Your task to perform on an android device: Open battery settings Image 0: 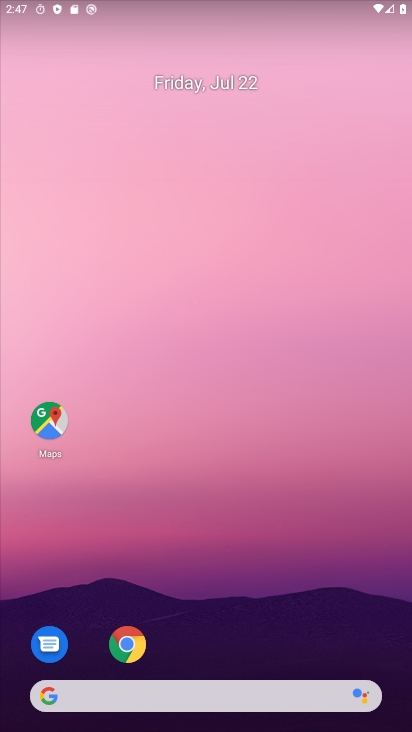
Step 0: drag from (205, 664) to (183, 265)
Your task to perform on an android device: Open battery settings Image 1: 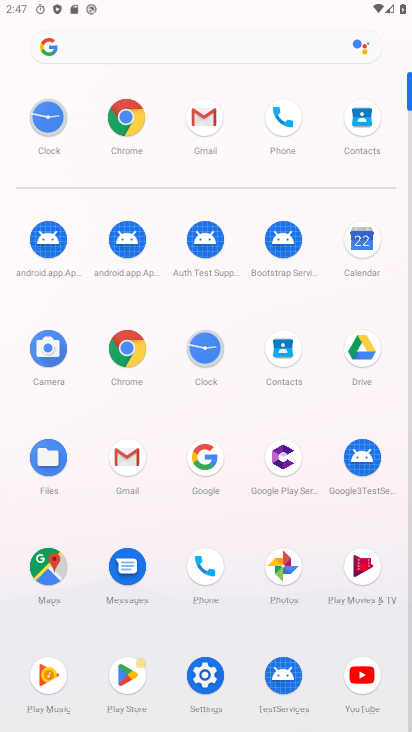
Step 1: click (209, 681)
Your task to perform on an android device: Open battery settings Image 2: 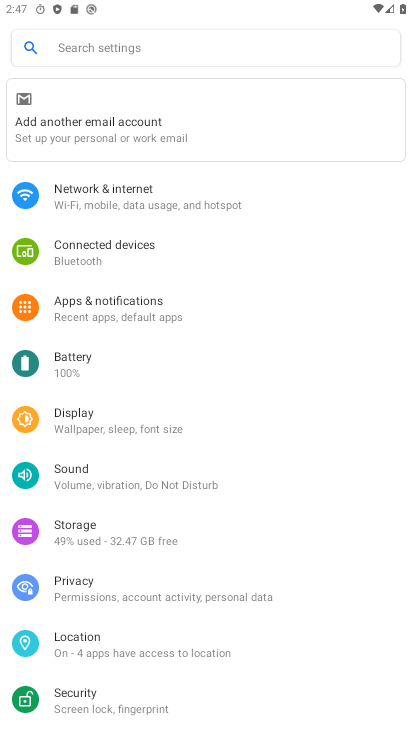
Step 2: click (77, 357)
Your task to perform on an android device: Open battery settings Image 3: 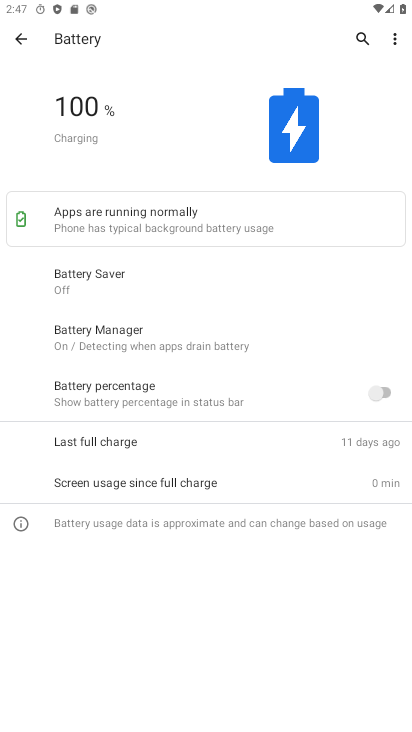
Step 3: task complete